Your task to perform on an android device: see sites visited before in the chrome app Image 0: 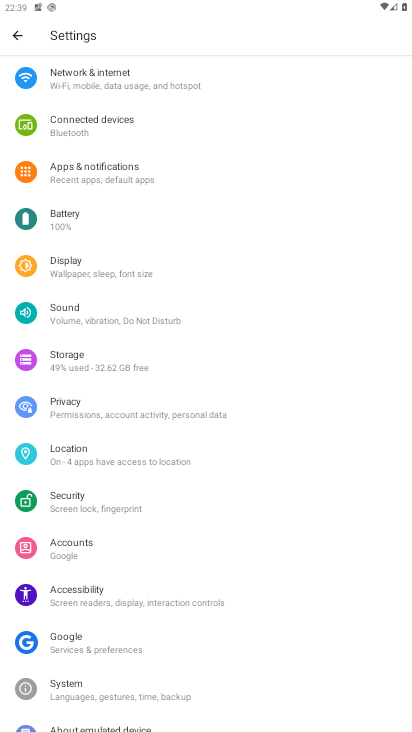
Step 0: press home button
Your task to perform on an android device: see sites visited before in the chrome app Image 1: 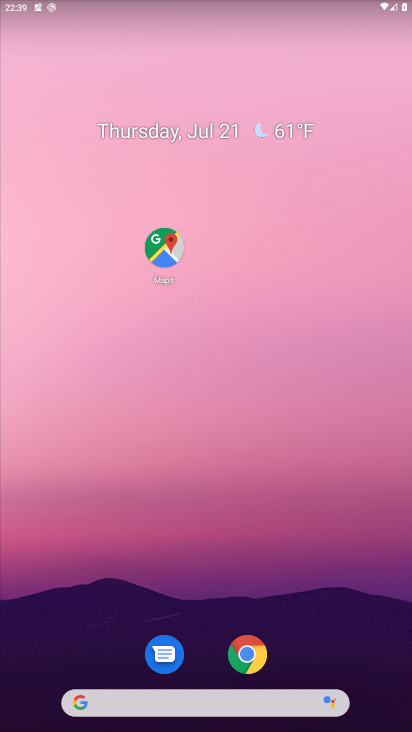
Step 1: click (244, 647)
Your task to perform on an android device: see sites visited before in the chrome app Image 2: 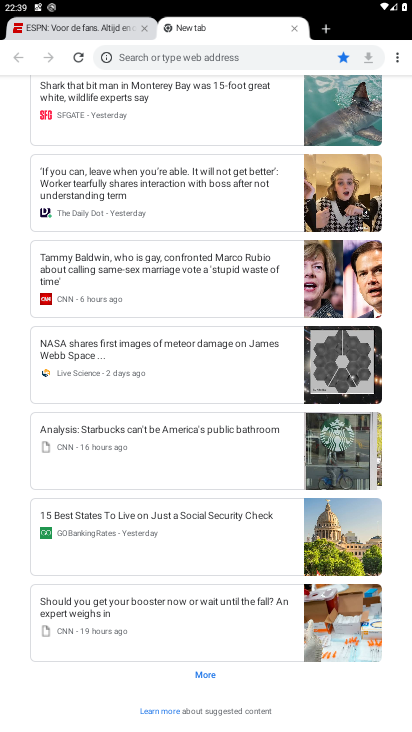
Step 2: click (396, 59)
Your task to perform on an android device: see sites visited before in the chrome app Image 3: 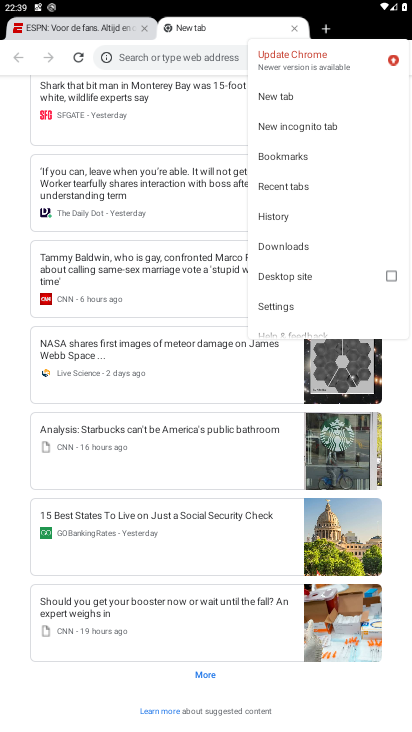
Step 3: click (272, 299)
Your task to perform on an android device: see sites visited before in the chrome app Image 4: 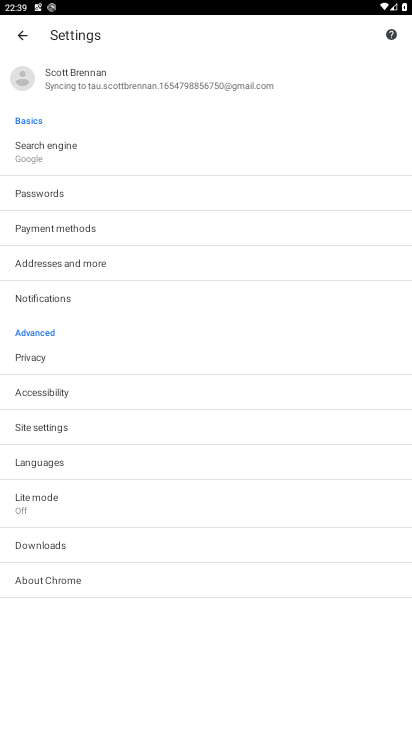
Step 4: click (52, 433)
Your task to perform on an android device: see sites visited before in the chrome app Image 5: 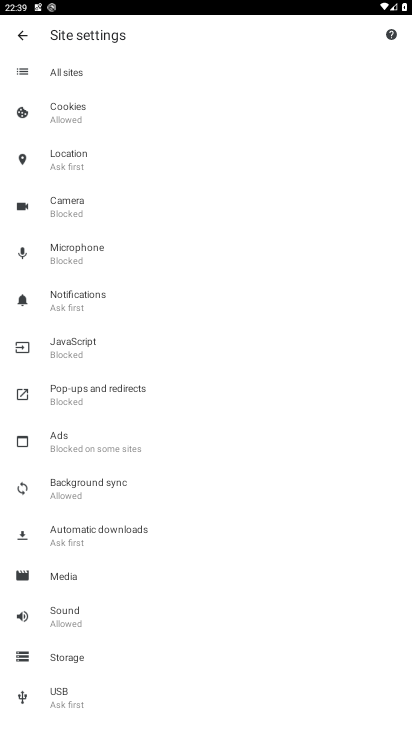
Step 5: task complete